Your task to perform on an android device: Go to Google Image 0: 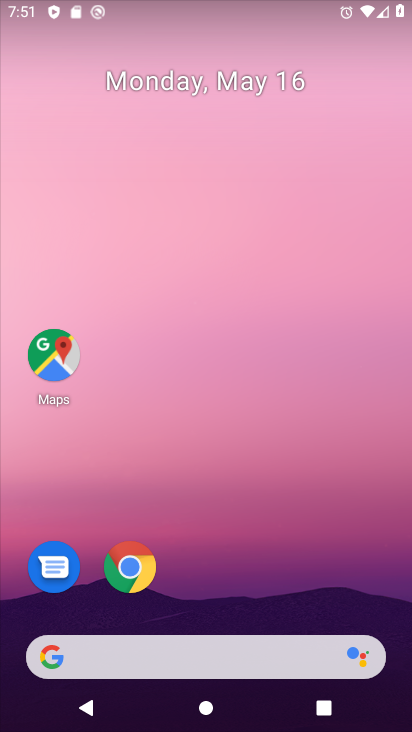
Step 0: drag from (204, 639) to (247, 251)
Your task to perform on an android device: Go to Google Image 1: 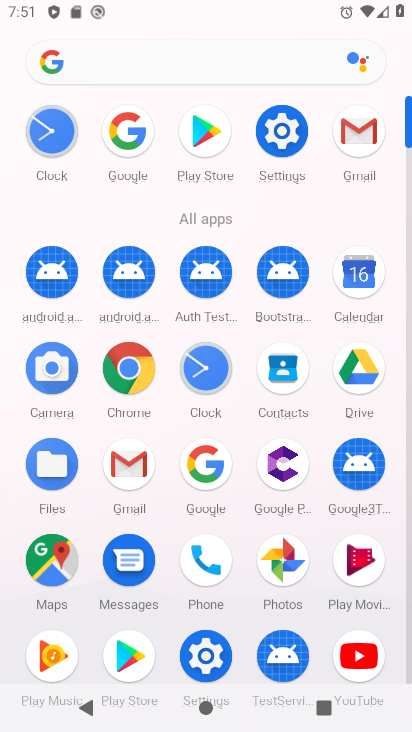
Step 1: click (199, 457)
Your task to perform on an android device: Go to Google Image 2: 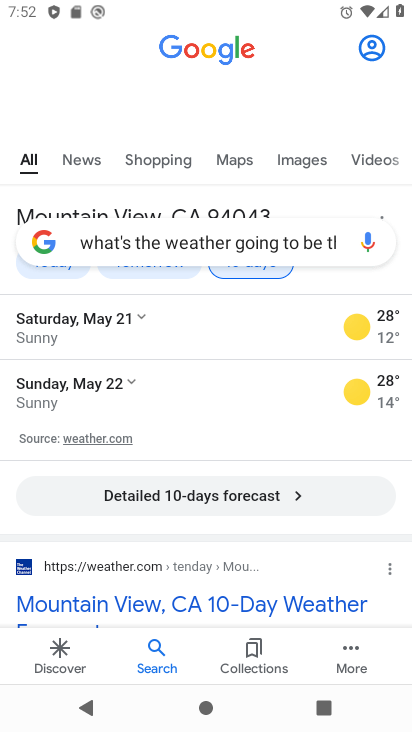
Step 2: task complete